Your task to perform on an android device: empty trash in the gmail app Image 0: 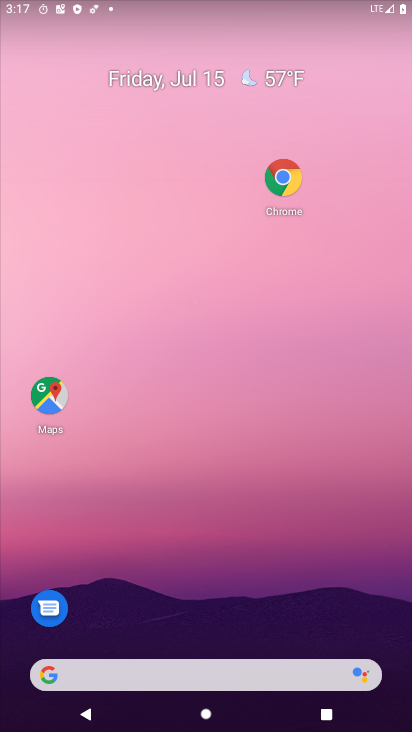
Step 0: drag from (295, 615) to (317, 108)
Your task to perform on an android device: empty trash in the gmail app Image 1: 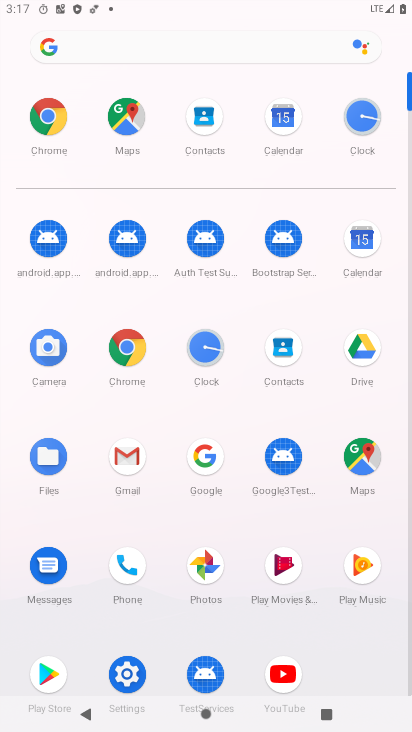
Step 1: click (146, 446)
Your task to perform on an android device: empty trash in the gmail app Image 2: 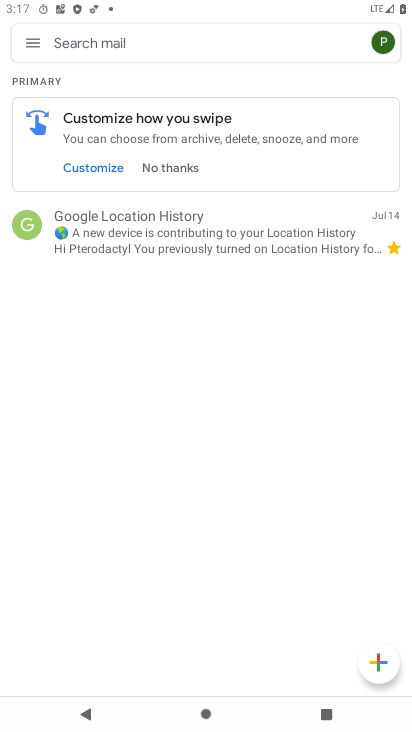
Step 2: click (30, 41)
Your task to perform on an android device: empty trash in the gmail app Image 3: 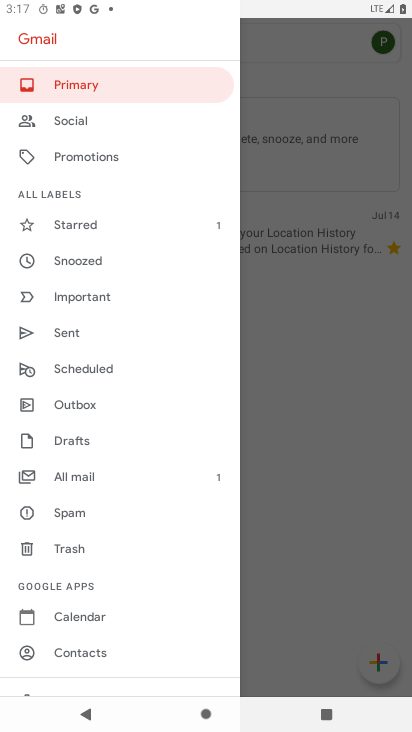
Step 3: click (64, 538)
Your task to perform on an android device: empty trash in the gmail app Image 4: 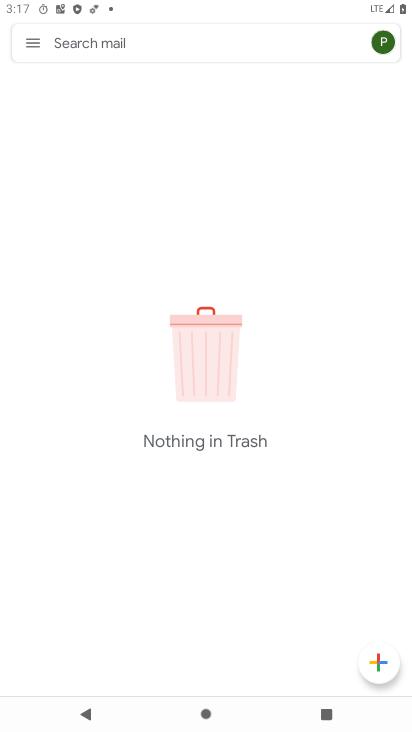
Step 4: task complete